Your task to perform on an android device: toggle sleep mode Image 0: 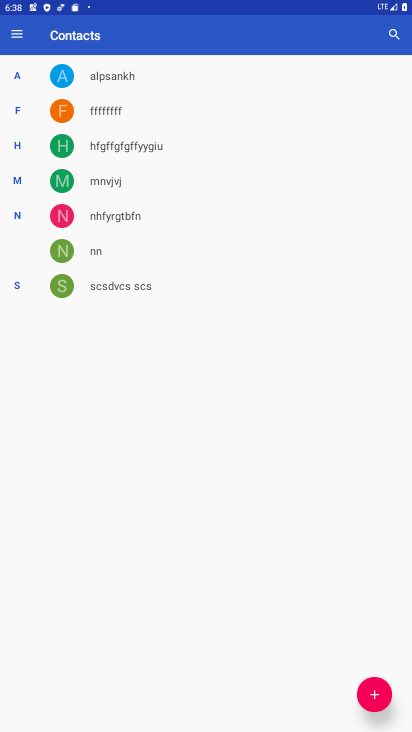
Step 0: press home button
Your task to perform on an android device: toggle sleep mode Image 1: 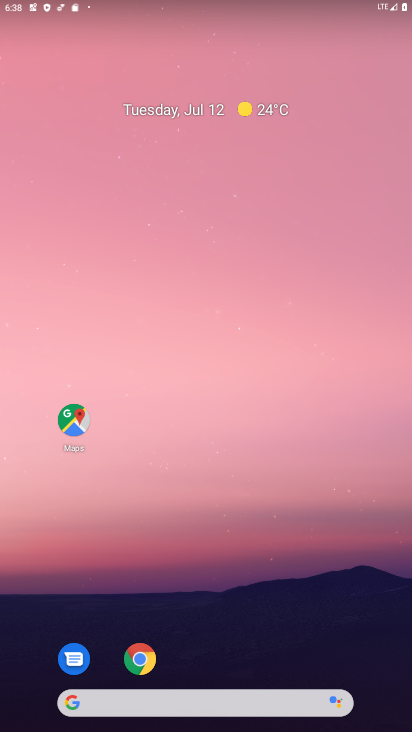
Step 1: drag from (321, 642) to (182, 45)
Your task to perform on an android device: toggle sleep mode Image 2: 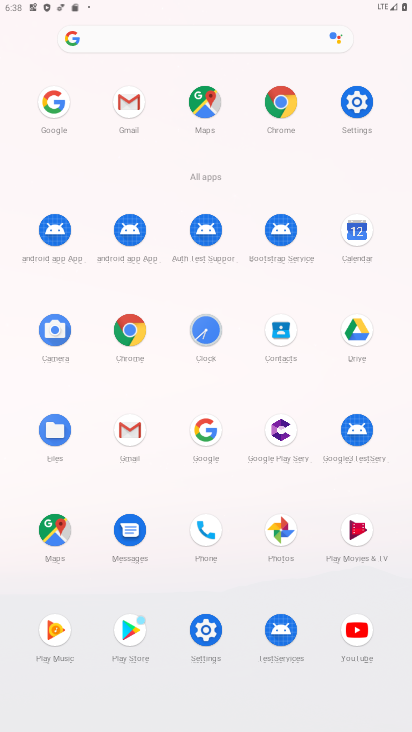
Step 2: click (353, 117)
Your task to perform on an android device: toggle sleep mode Image 3: 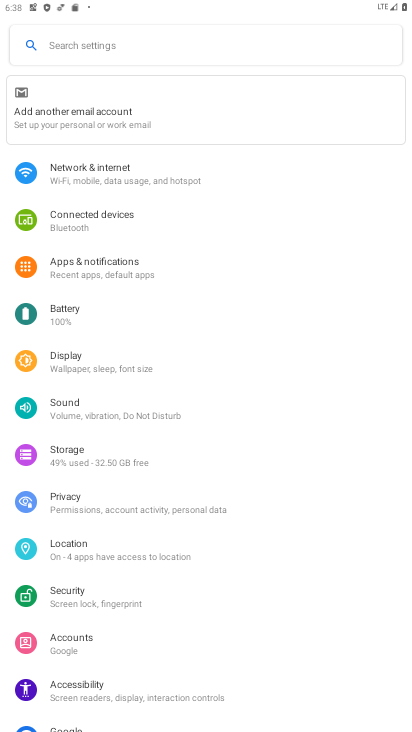
Step 3: task complete